Your task to perform on an android device: add a contact in the contacts app Image 0: 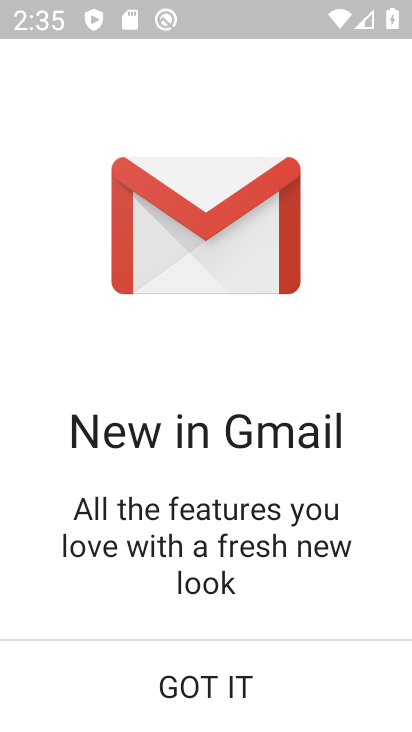
Step 0: press home button
Your task to perform on an android device: add a contact in the contacts app Image 1: 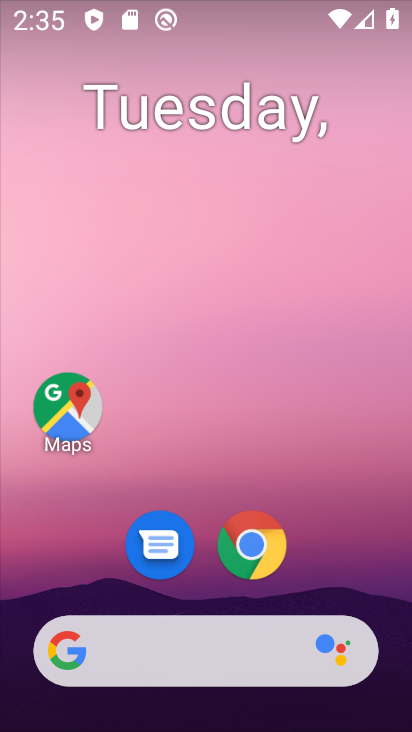
Step 1: drag from (226, 624) to (221, 45)
Your task to perform on an android device: add a contact in the contacts app Image 2: 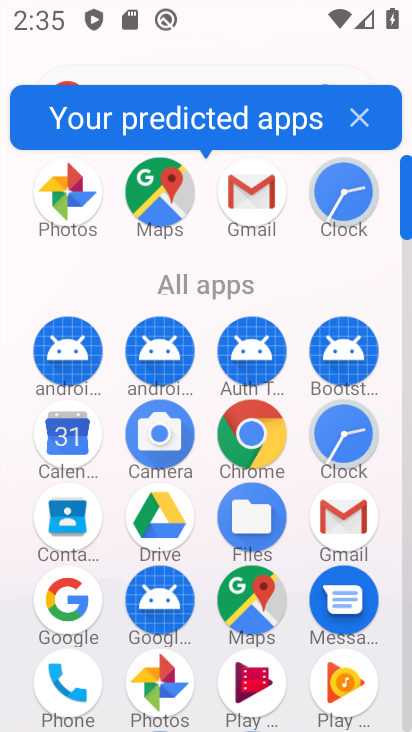
Step 2: click (73, 509)
Your task to perform on an android device: add a contact in the contacts app Image 3: 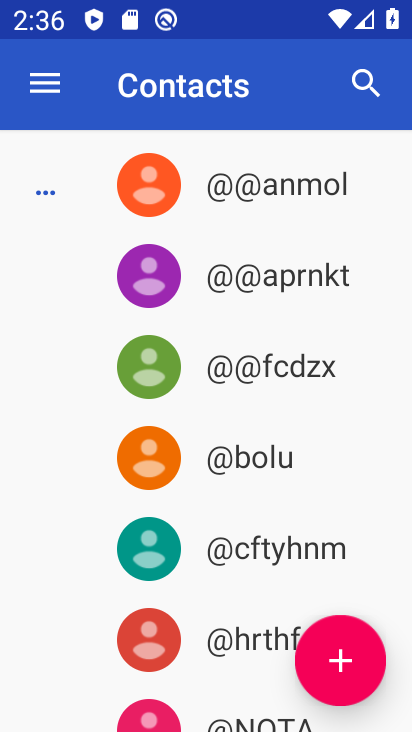
Step 3: click (320, 645)
Your task to perform on an android device: add a contact in the contacts app Image 4: 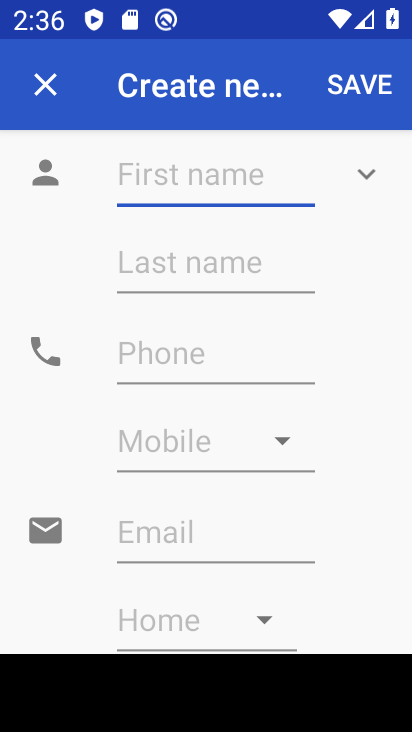
Step 4: type "xccvxc"
Your task to perform on an android device: add a contact in the contacts app Image 5: 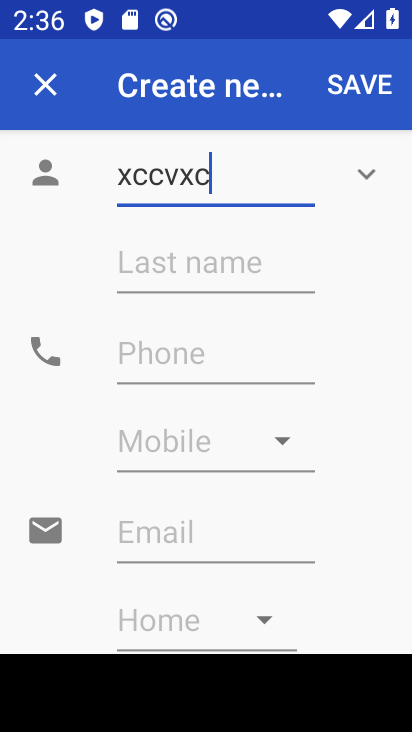
Step 5: click (223, 343)
Your task to perform on an android device: add a contact in the contacts app Image 6: 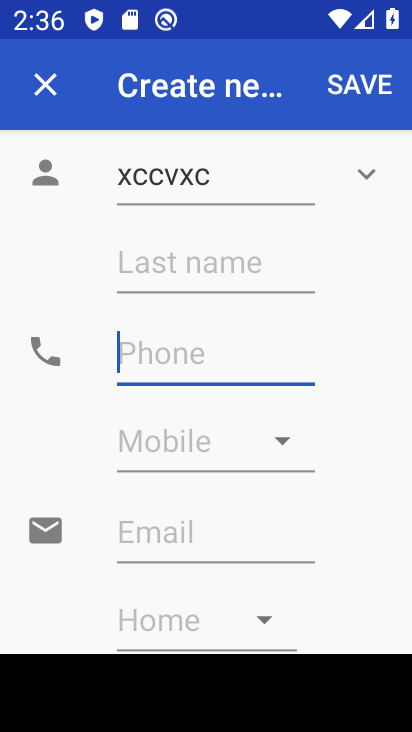
Step 6: type "39484559834"
Your task to perform on an android device: add a contact in the contacts app Image 7: 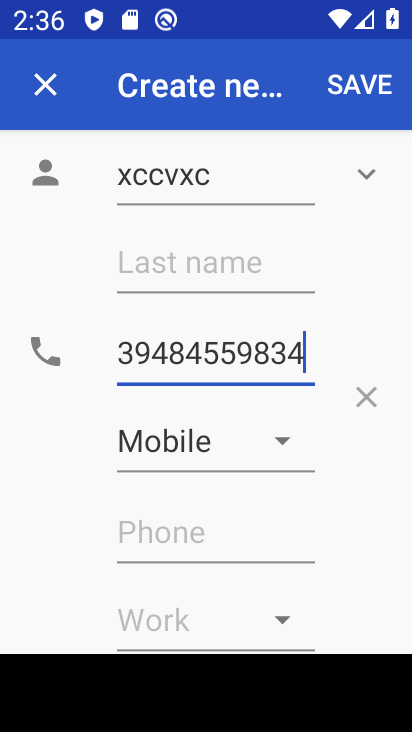
Step 7: click (371, 90)
Your task to perform on an android device: add a contact in the contacts app Image 8: 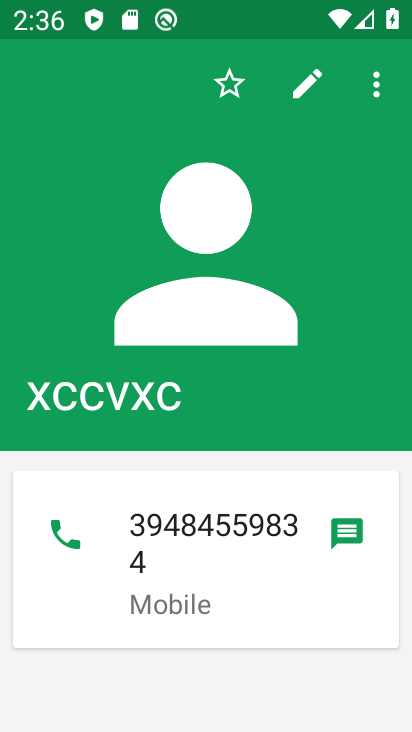
Step 8: task complete